Your task to perform on an android device: snooze an email in the gmail app Image 0: 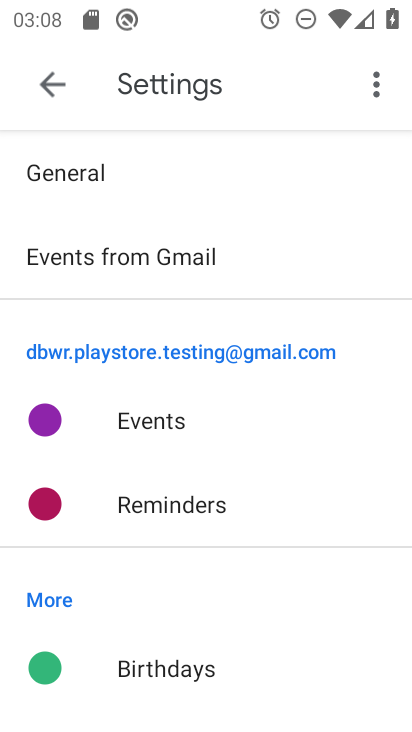
Step 0: press home button
Your task to perform on an android device: snooze an email in the gmail app Image 1: 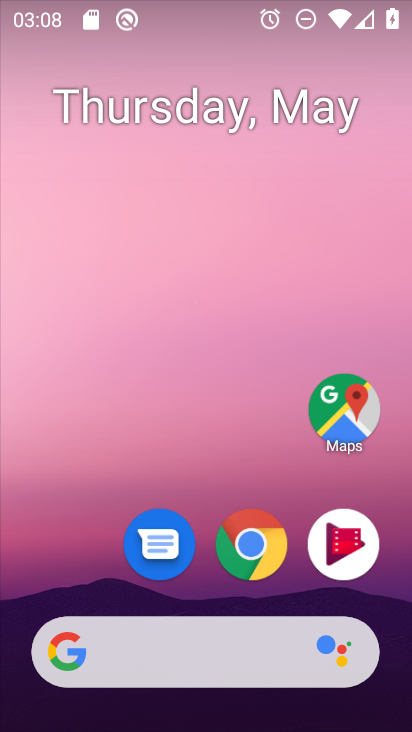
Step 1: drag from (60, 569) to (79, 135)
Your task to perform on an android device: snooze an email in the gmail app Image 2: 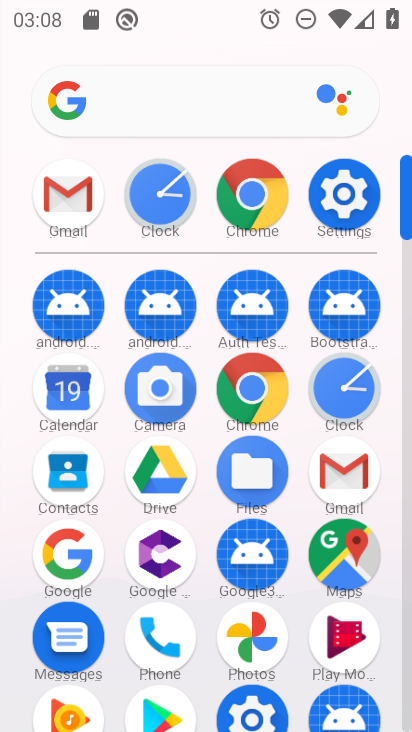
Step 2: click (349, 485)
Your task to perform on an android device: snooze an email in the gmail app Image 3: 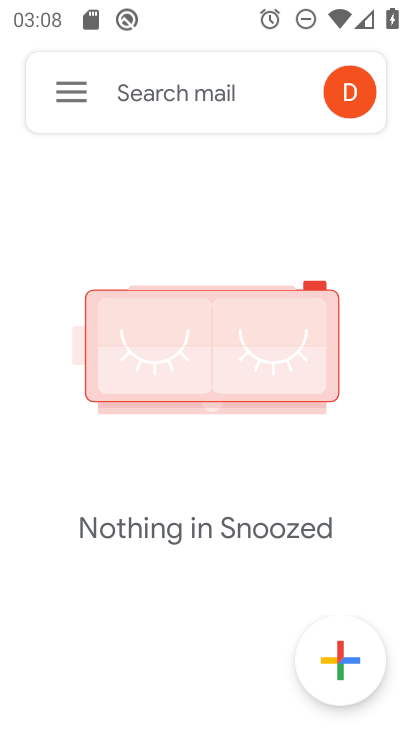
Step 3: click (76, 83)
Your task to perform on an android device: snooze an email in the gmail app Image 4: 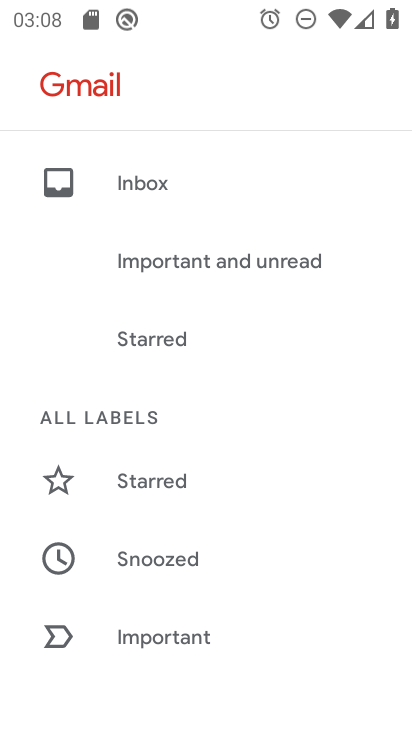
Step 4: drag from (304, 613) to (325, 466)
Your task to perform on an android device: snooze an email in the gmail app Image 5: 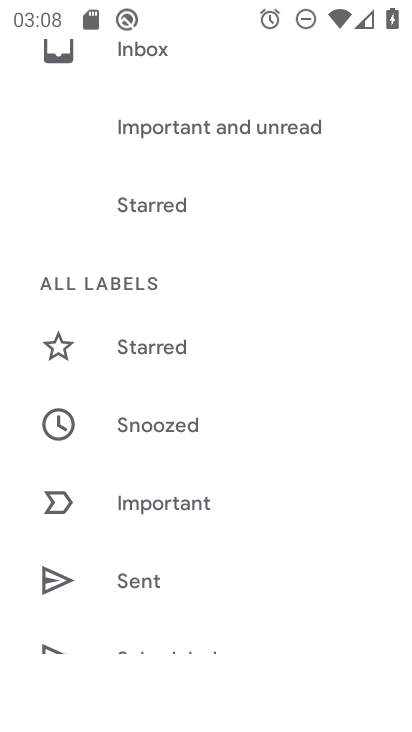
Step 5: drag from (314, 631) to (312, 451)
Your task to perform on an android device: snooze an email in the gmail app Image 6: 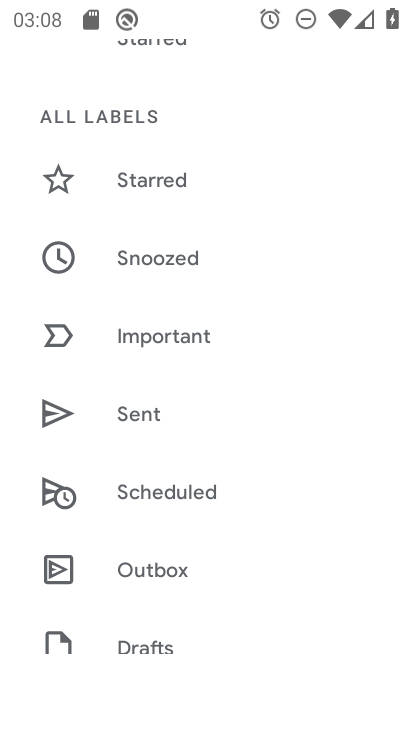
Step 6: drag from (297, 609) to (297, 500)
Your task to perform on an android device: snooze an email in the gmail app Image 7: 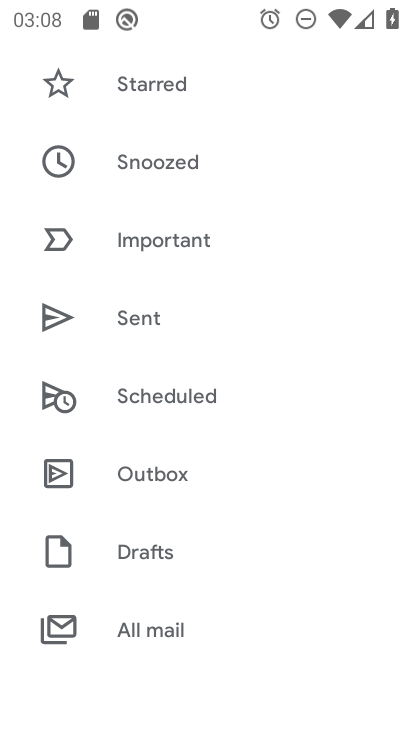
Step 7: click (180, 158)
Your task to perform on an android device: snooze an email in the gmail app Image 8: 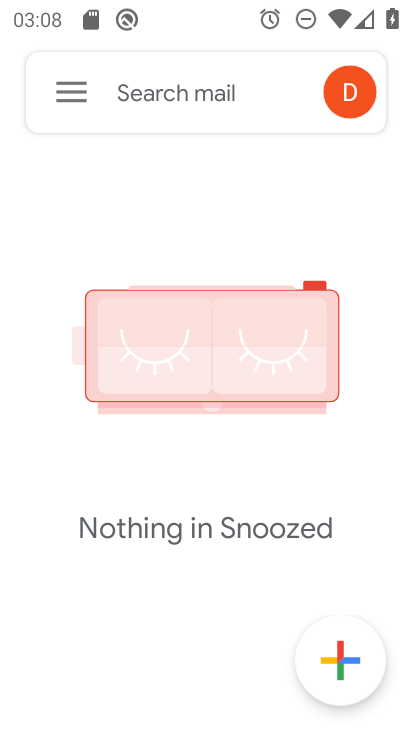
Step 8: task complete